Your task to perform on an android device: move a message to another label in the gmail app Image 0: 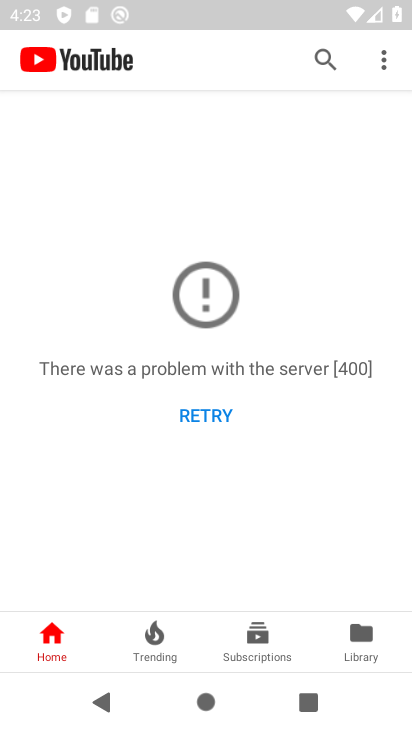
Step 0: press home button
Your task to perform on an android device: move a message to another label in the gmail app Image 1: 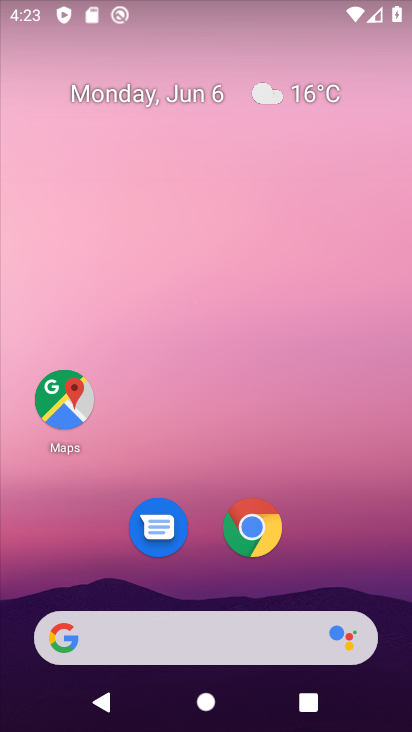
Step 1: drag from (210, 616) to (196, 133)
Your task to perform on an android device: move a message to another label in the gmail app Image 2: 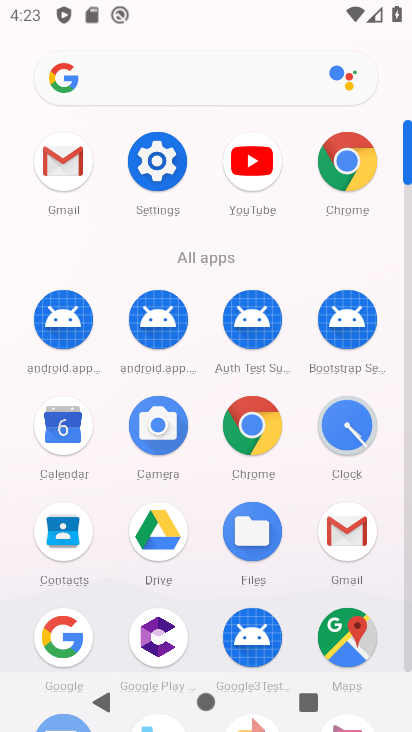
Step 2: click (66, 181)
Your task to perform on an android device: move a message to another label in the gmail app Image 3: 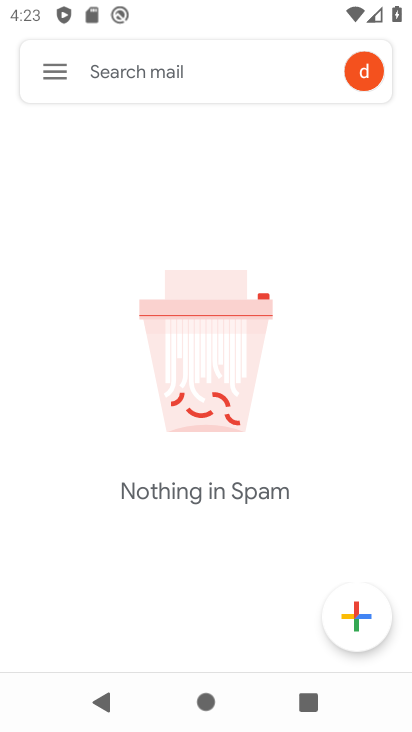
Step 3: click (59, 72)
Your task to perform on an android device: move a message to another label in the gmail app Image 4: 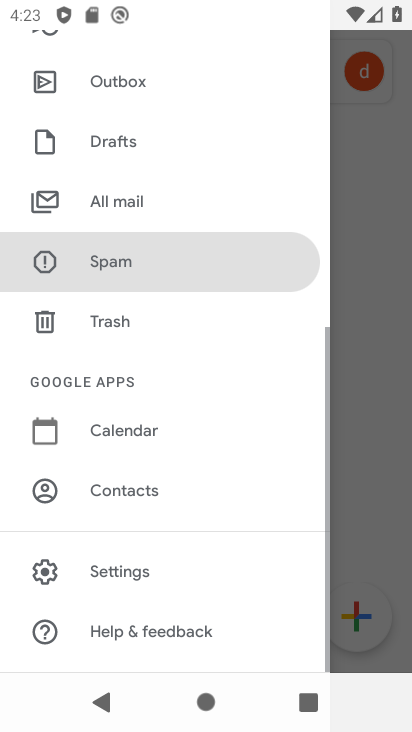
Step 4: drag from (167, 85) to (171, 495)
Your task to perform on an android device: move a message to another label in the gmail app Image 5: 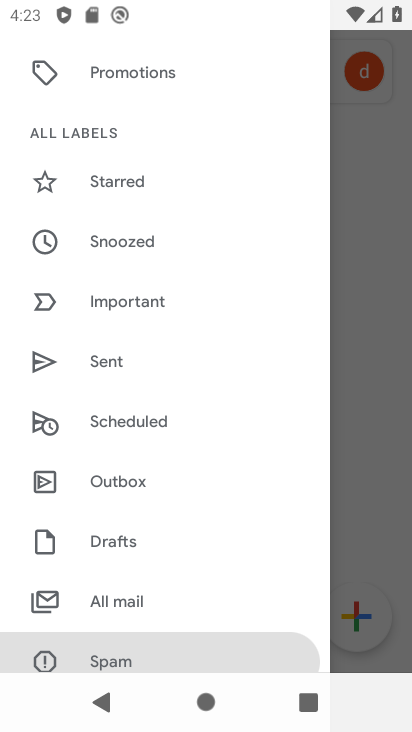
Step 5: drag from (163, 63) to (220, 423)
Your task to perform on an android device: move a message to another label in the gmail app Image 6: 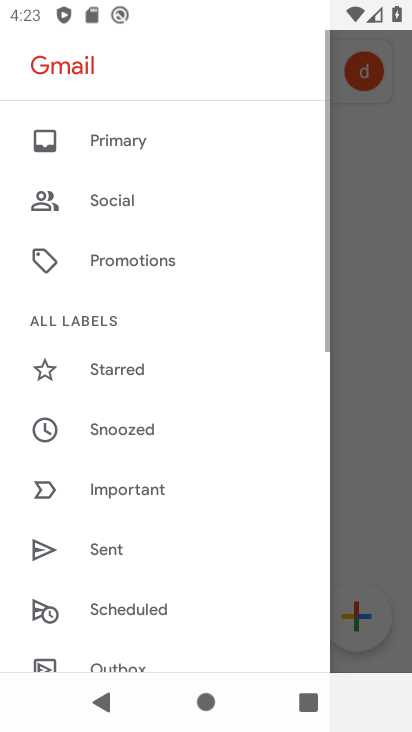
Step 6: click (151, 142)
Your task to perform on an android device: move a message to another label in the gmail app Image 7: 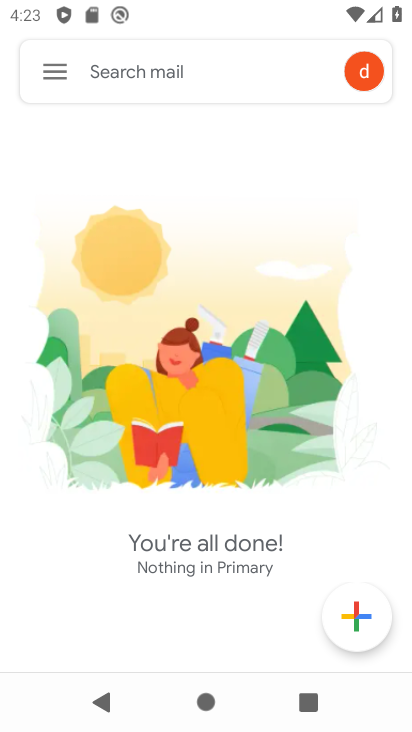
Step 7: task complete